Your task to perform on an android device: install app "eBay: The shopping marketplace" Image 0: 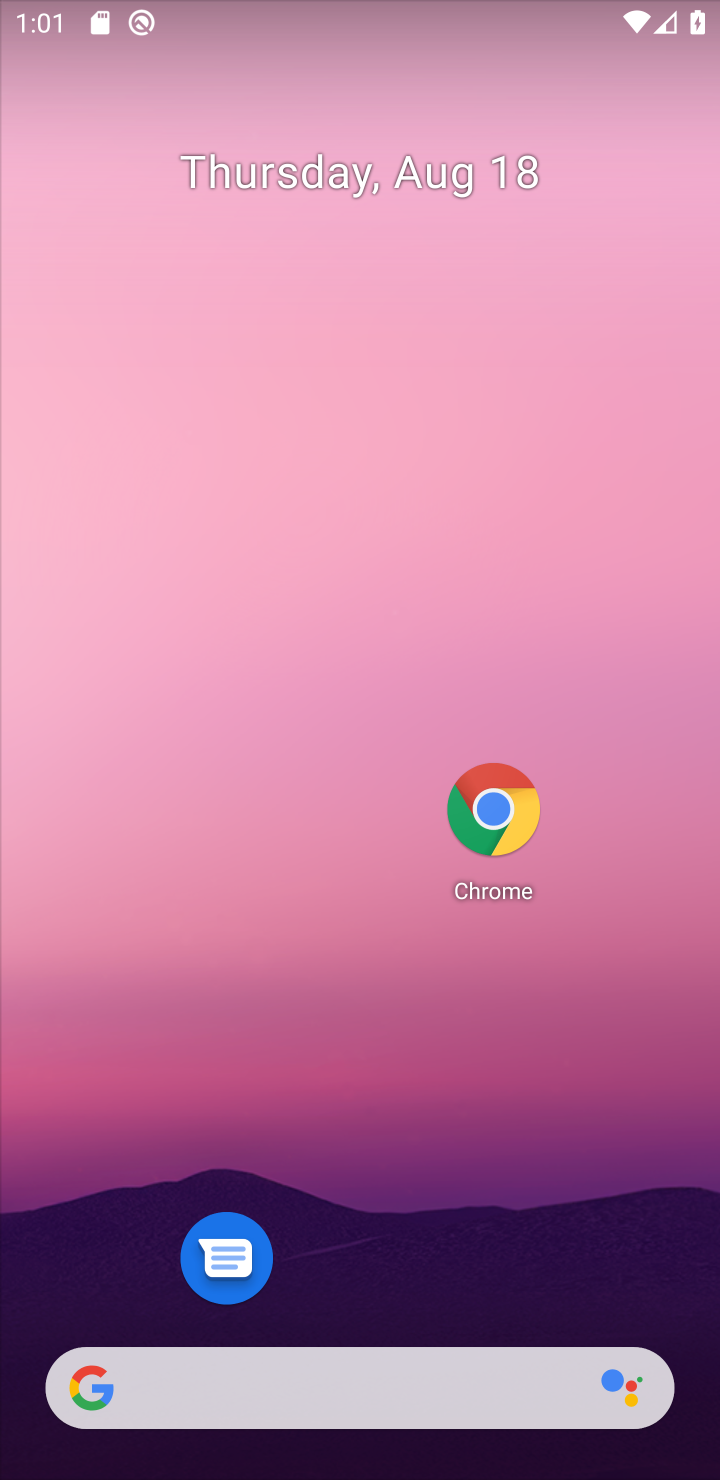
Step 0: drag from (357, 667) to (331, 343)
Your task to perform on an android device: install app "eBay: The shopping marketplace" Image 1: 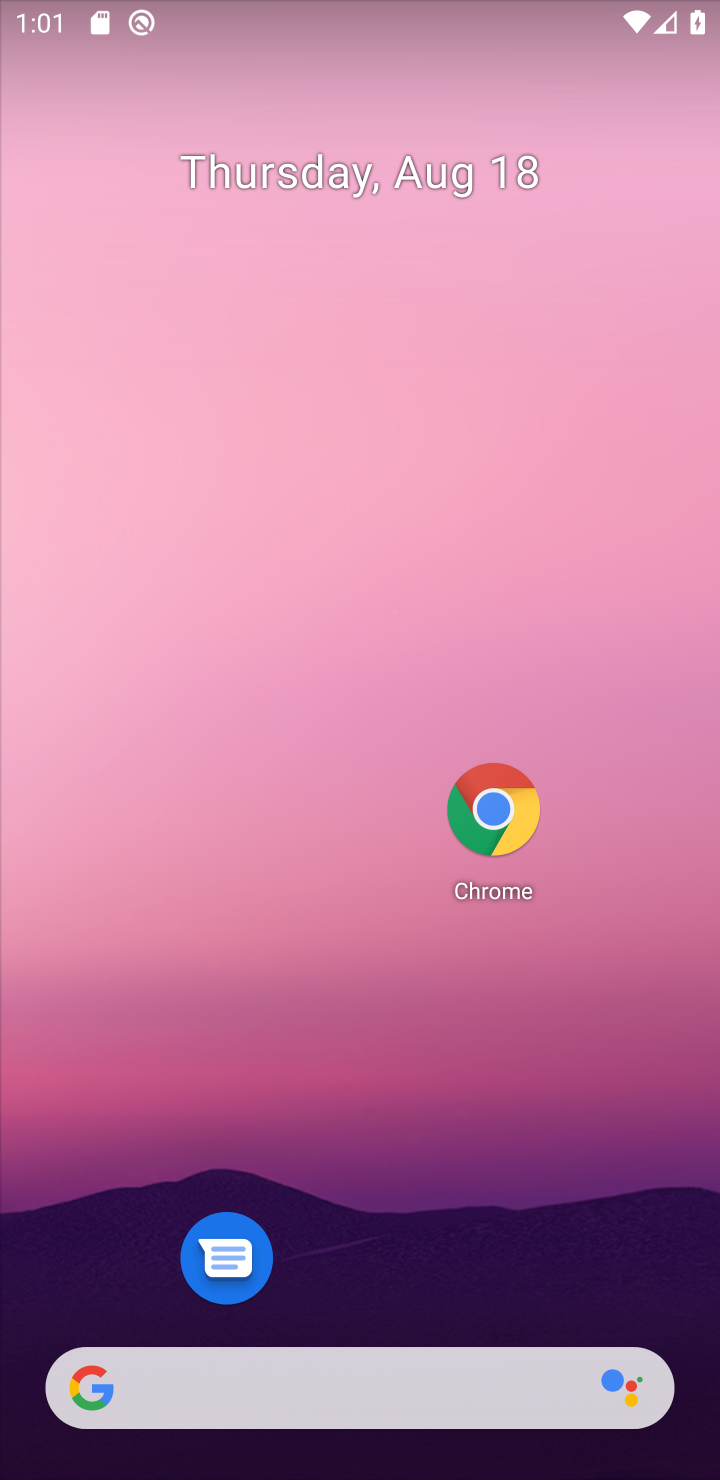
Step 1: drag from (417, 1274) to (402, 117)
Your task to perform on an android device: install app "eBay: The shopping marketplace" Image 2: 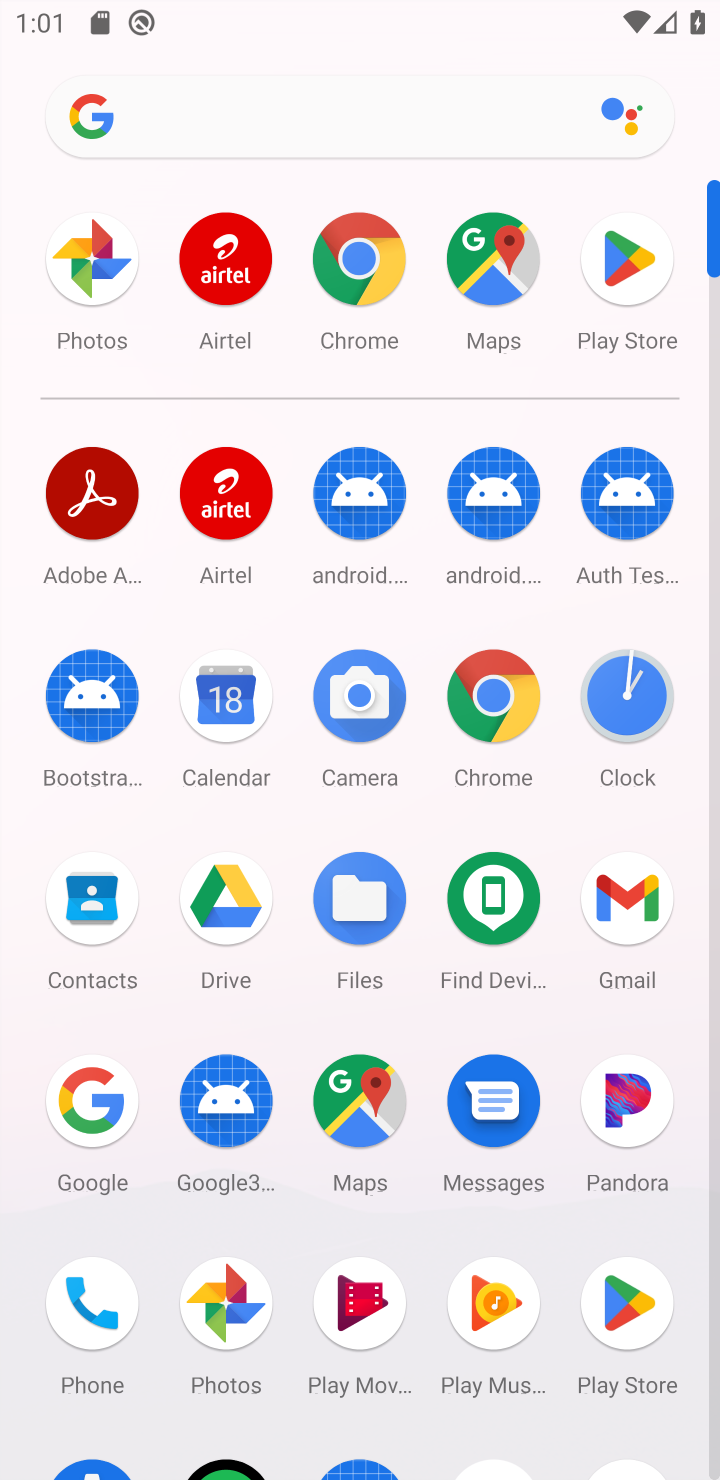
Step 2: click (636, 262)
Your task to perform on an android device: install app "eBay: The shopping marketplace" Image 3: 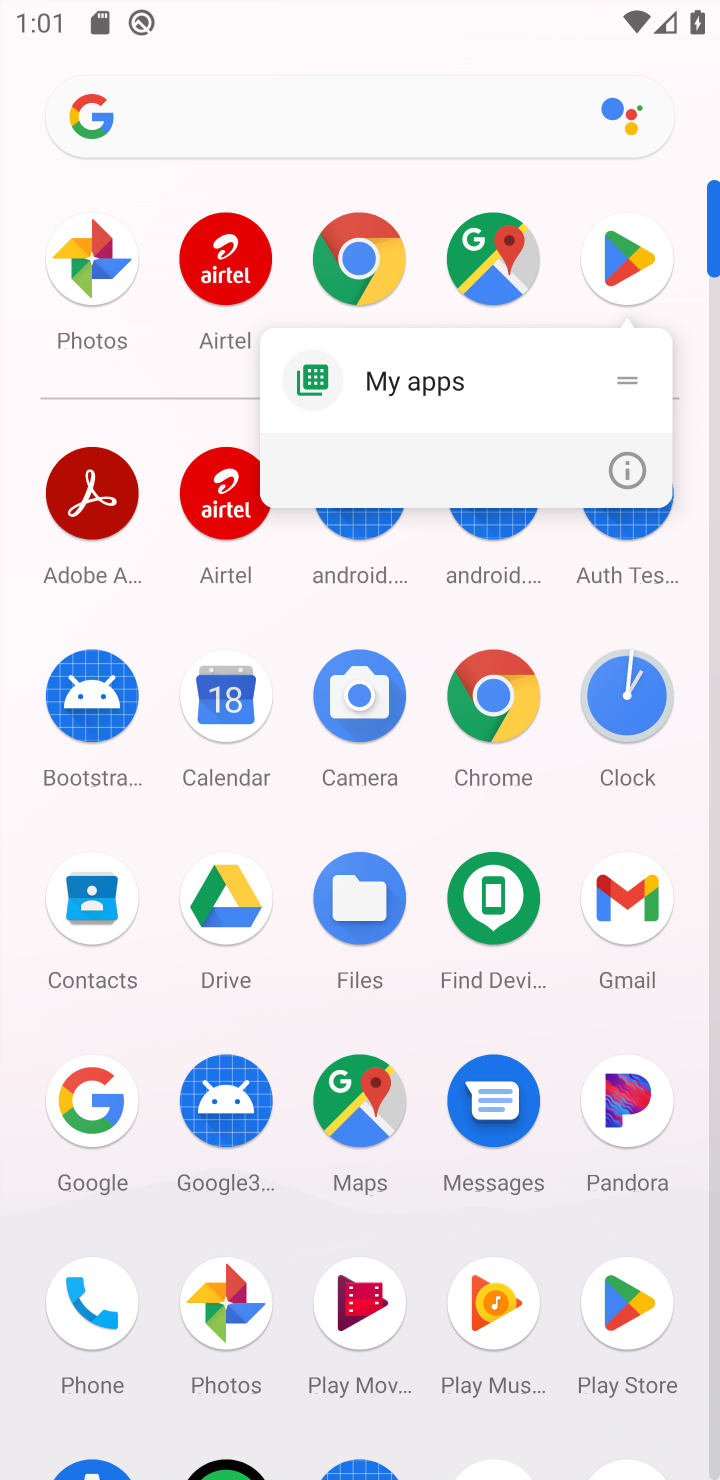
Step 3: click (636, 262)
Your task to perform on an android device: install app "eBay: The shopping marketplace" Image 4: 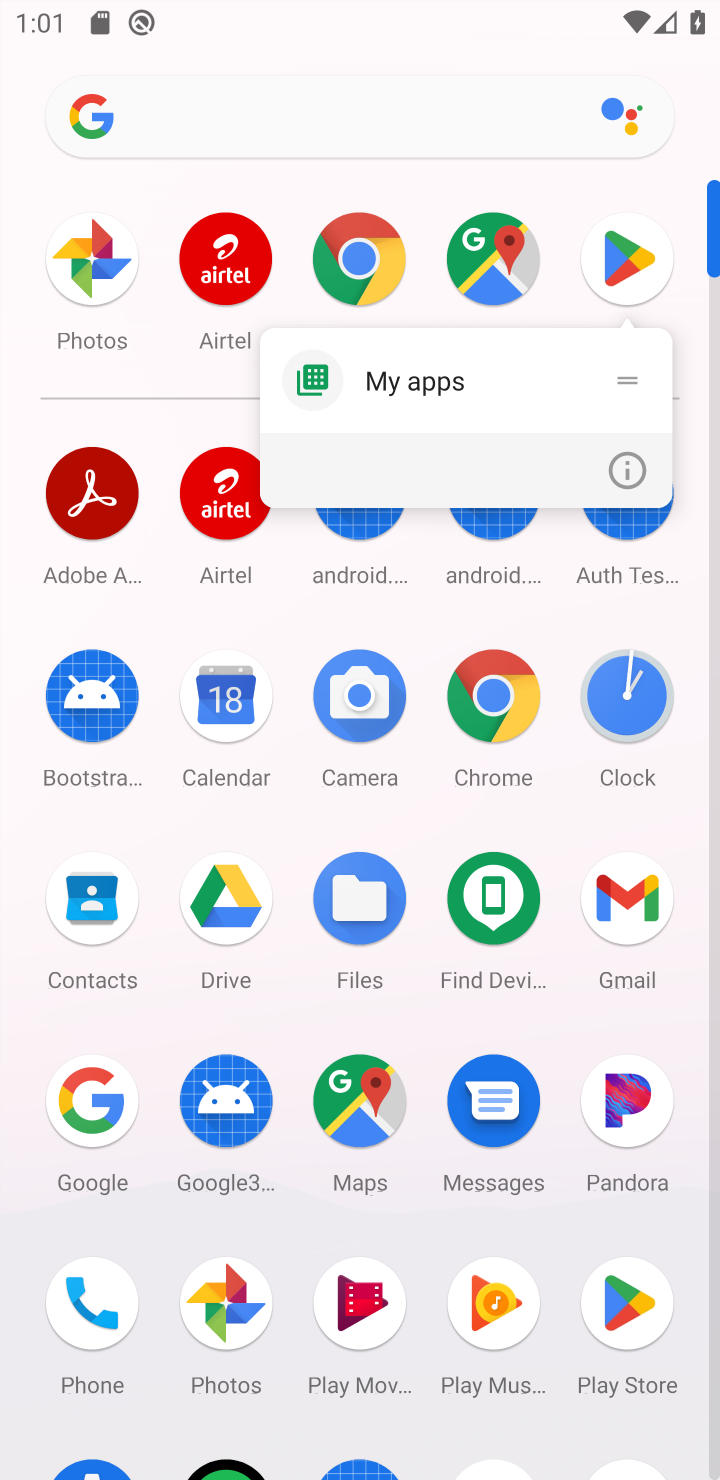
Step 4: click (623, 273)
Your task to perform on an android device: install app "eBay: The shopping marketplace" Image 5: 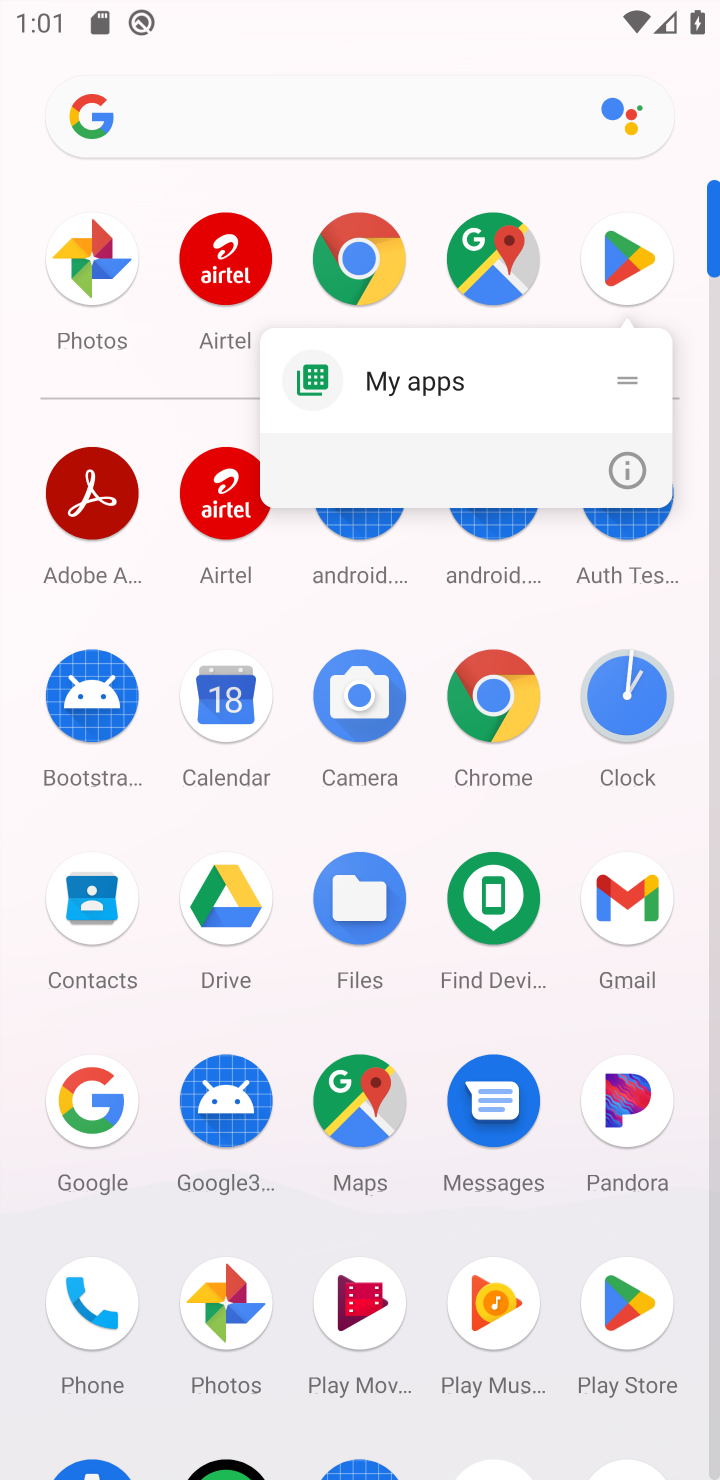
Step 5: click (623, 286)
Your task to perform on an android device: install app "eBay: The shopping marketplace" Image 6: 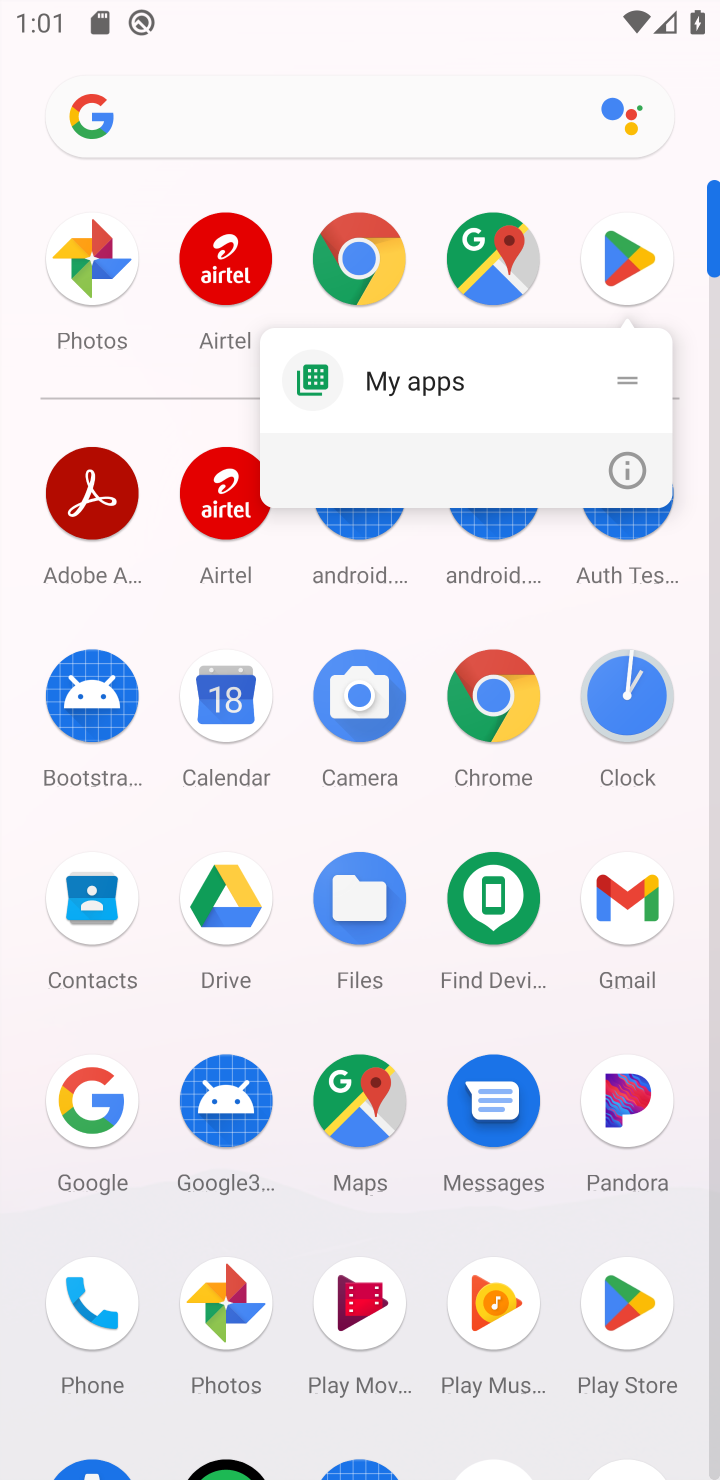
Step 6: click (623, 286)
Your task to perform on an android device: install app "eBay: The shopping marketplace" Image 7: 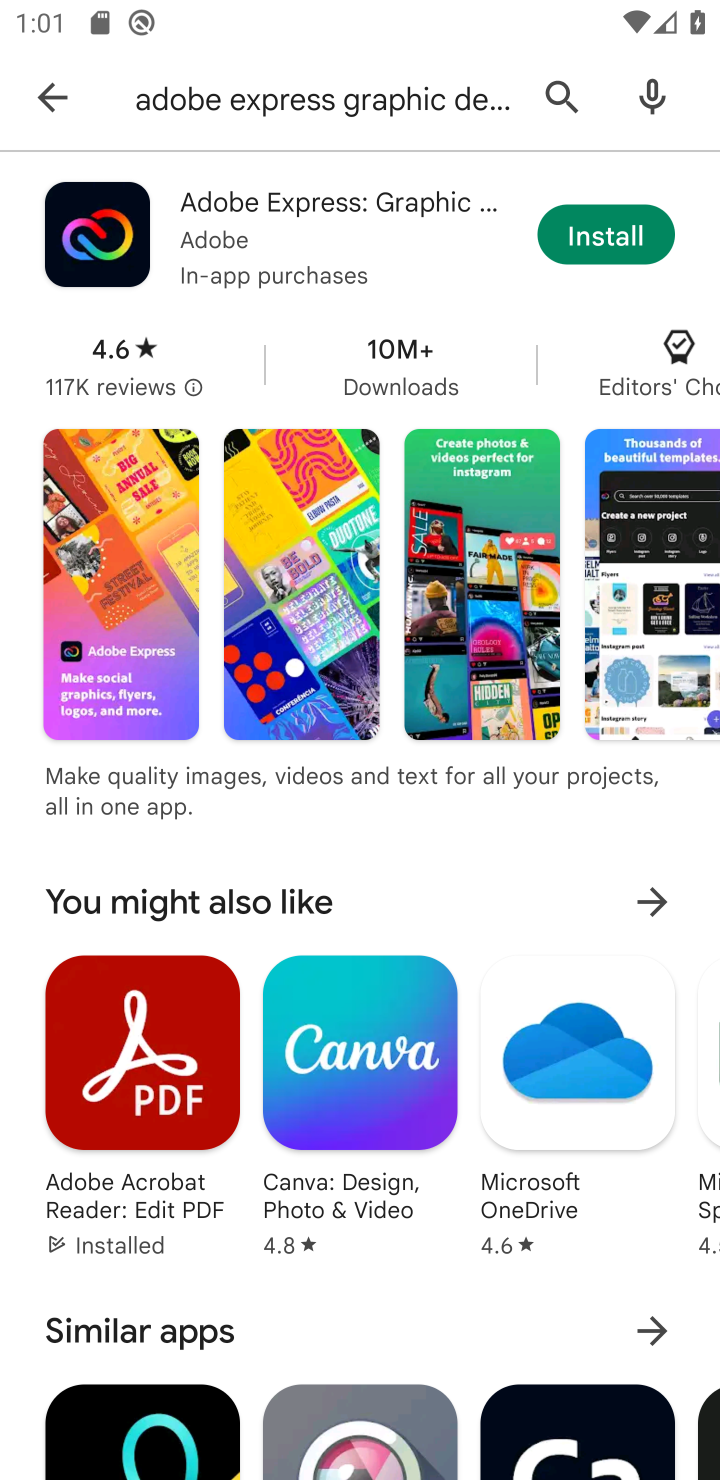
Step 7: click (58, 91)
Your task to perform on an android device: install app "eBay: The shopping marketplace" Image 8: 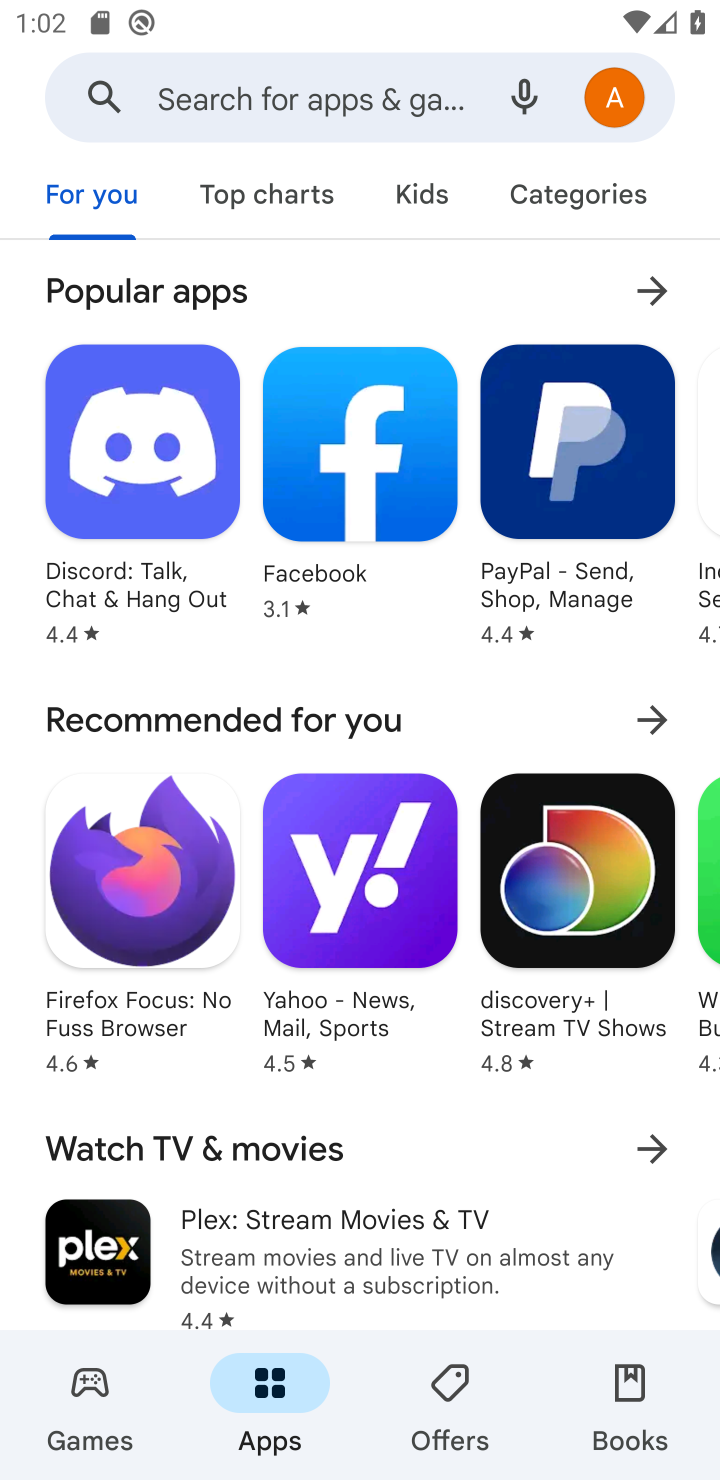
Step 8: click (379, 98)
Your task to perform on an android device: install app "eBay: The shopping marketplace" Image 9: 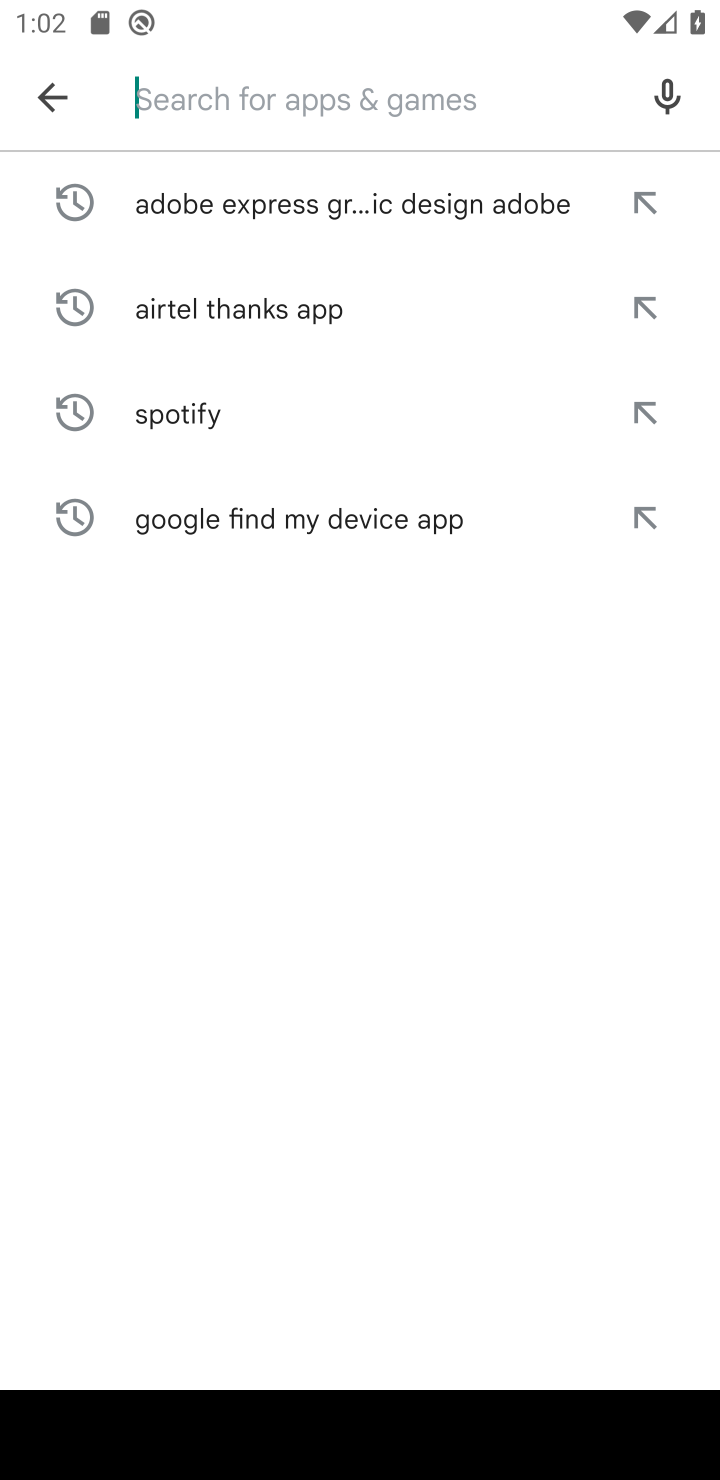
Step 9: type "eBay: The shopping marketplace "
Your task to perform on an android device: install app "eBay: The shopping marketplace" Image 10: 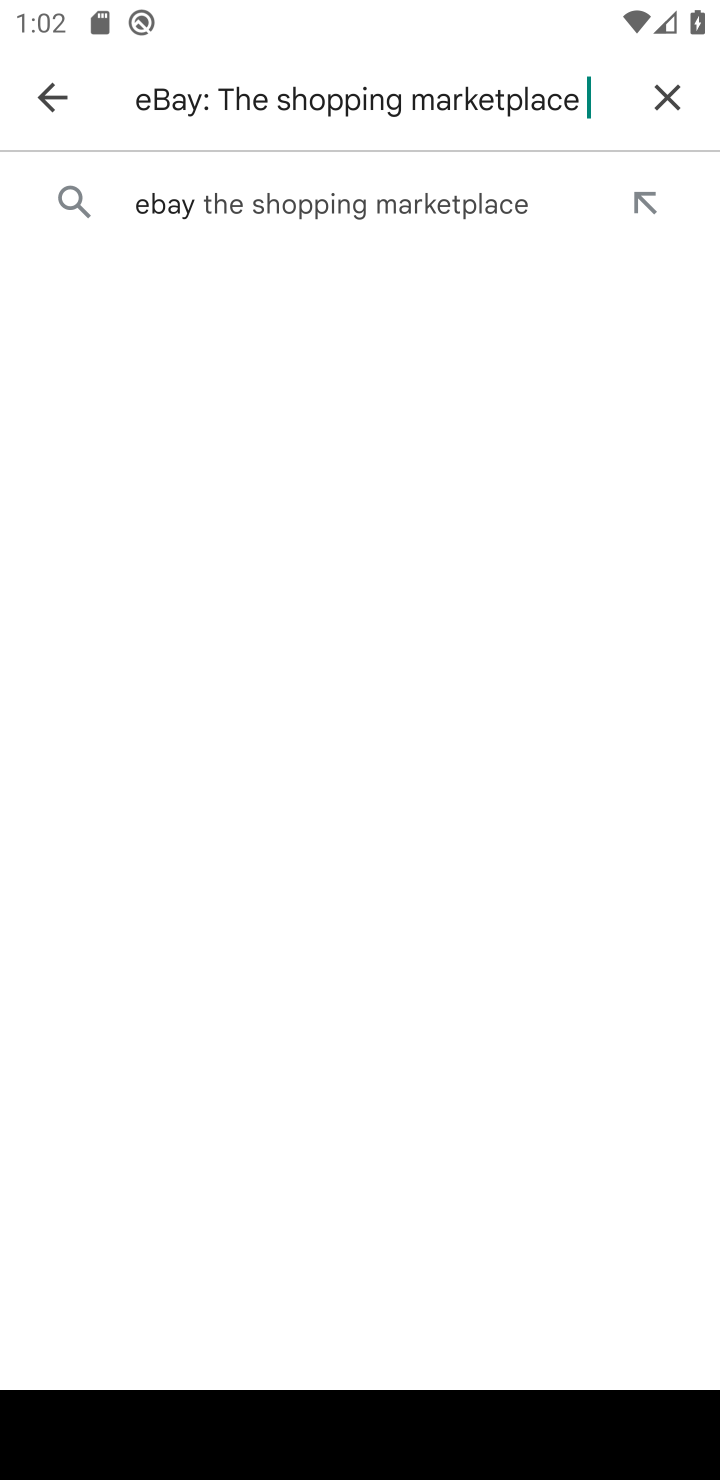
Step 10: click (419, 207)
Your task to perform on an android device: install app "eBay: The shopping marketplace" Image 11: 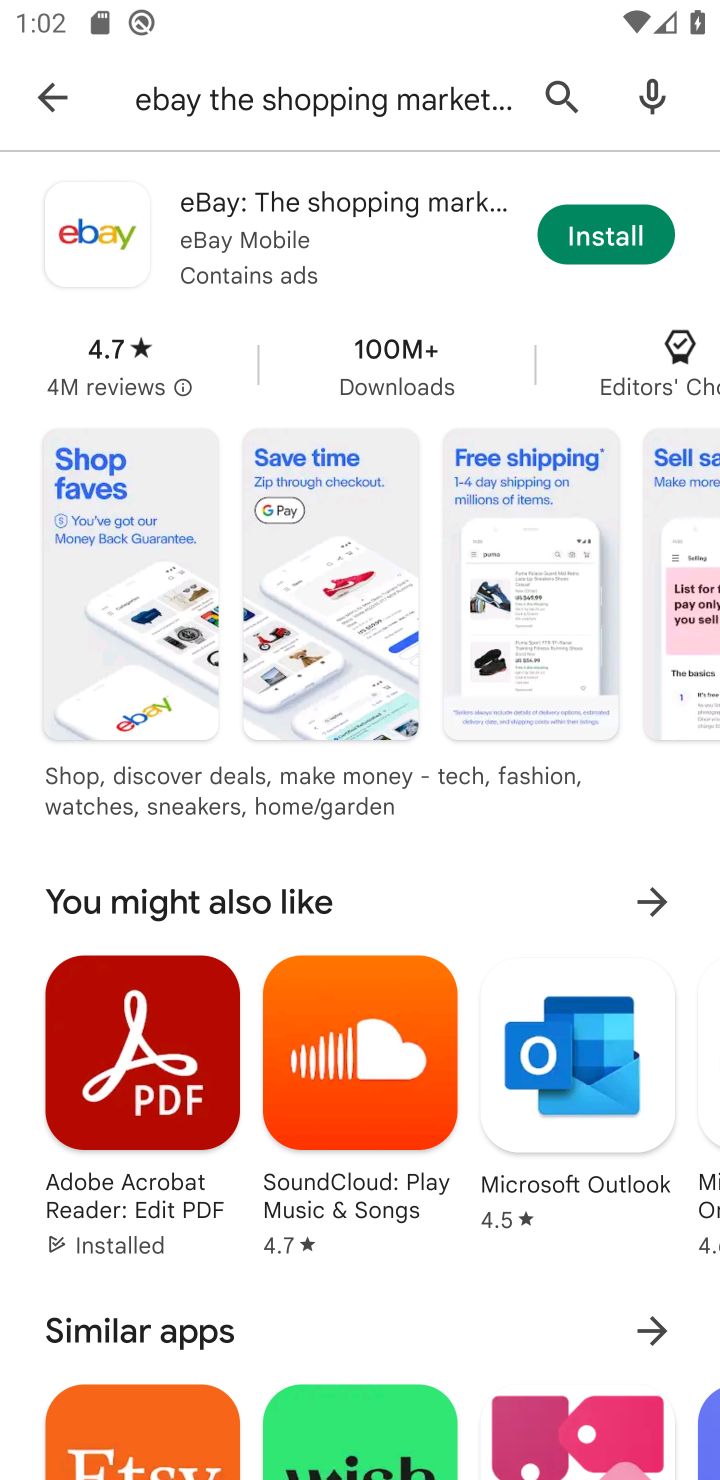
Step 11: click (586, 225)
Your task to perform on an android device: install app "eBay: The shopping marketplace" Image 12: 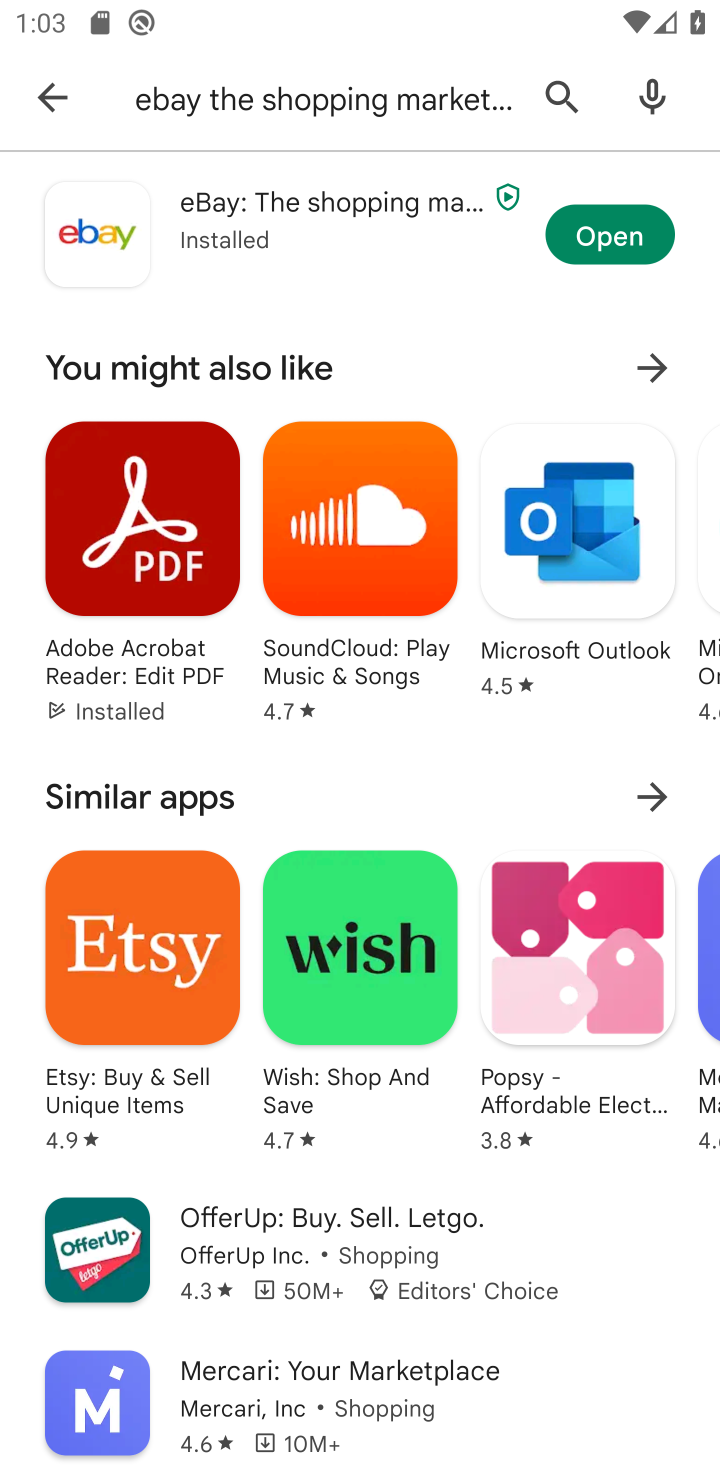
Step 12: click (621, 234)
Your task to perform on an android device: install app "eBay: The shopping marketplace" Image 13: 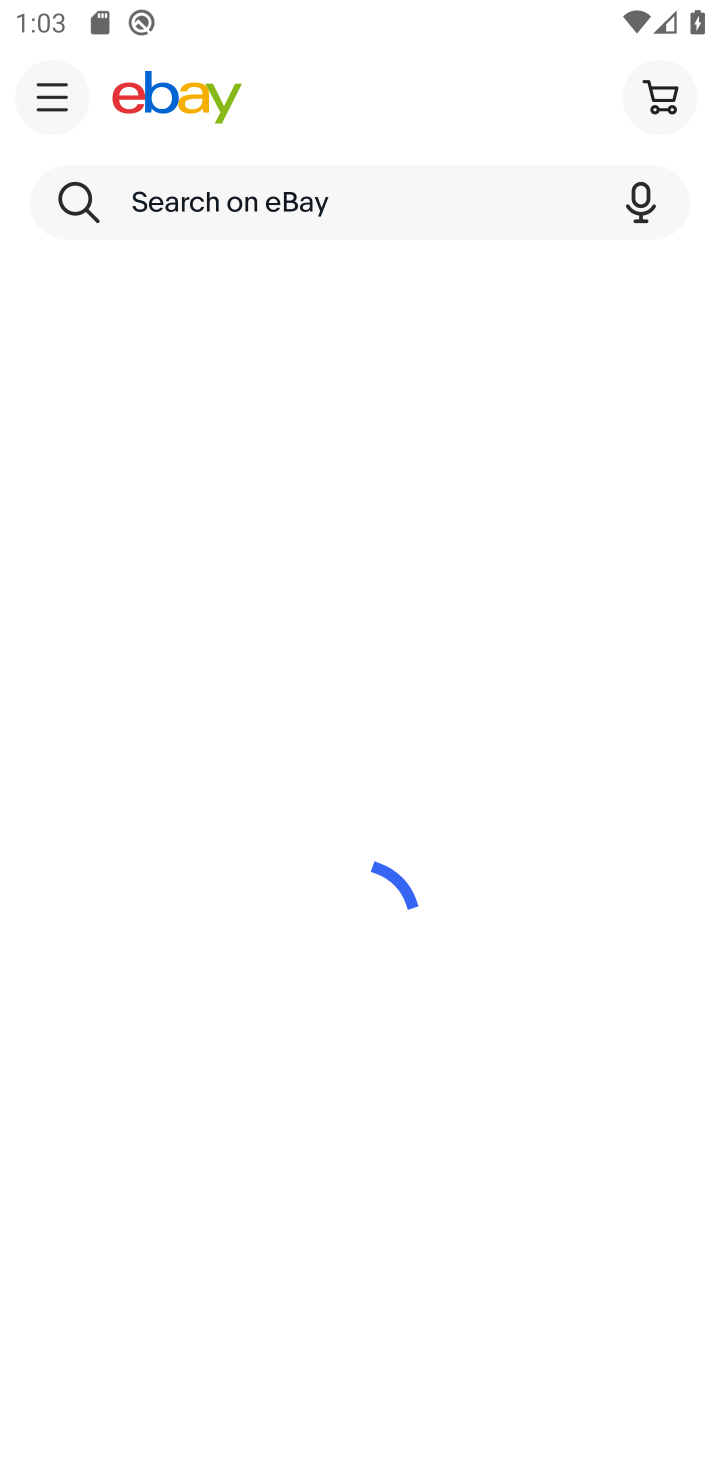
Step 13: task complete